Your task to perform on an android device: Go to Google Image 0: 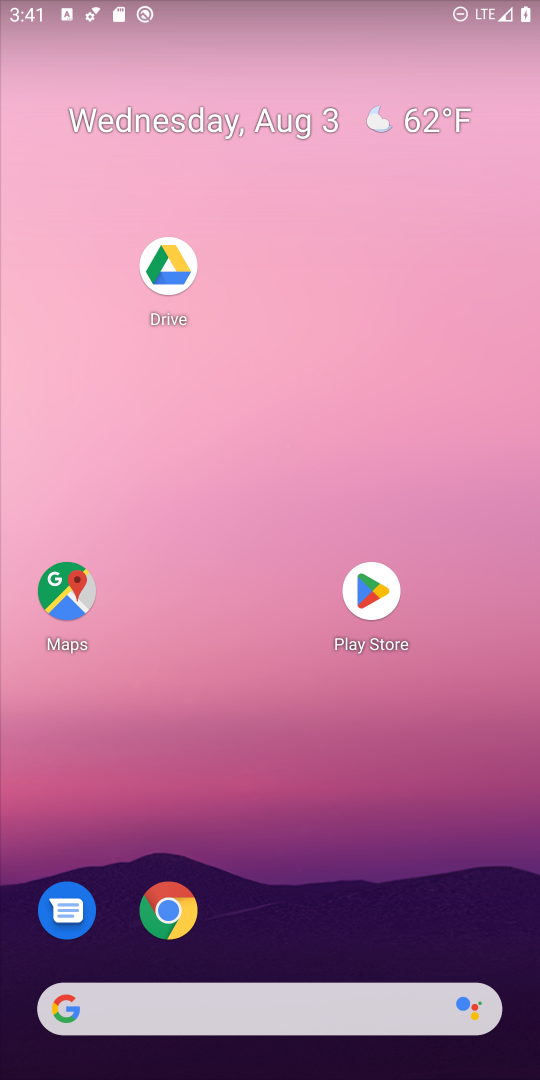
Step 0: drag from (276, 1022) to (367, 18)
Your task to perform on an android device: Go to Google Image 1: 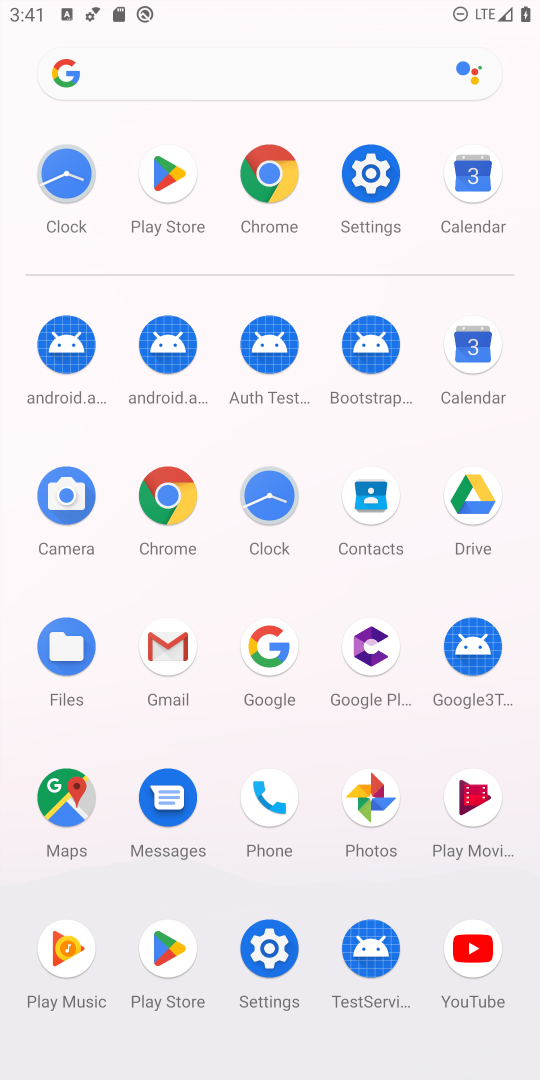
Step 1: click (262, 637)
Your task to perform on an android device: Go to Google Image 2: 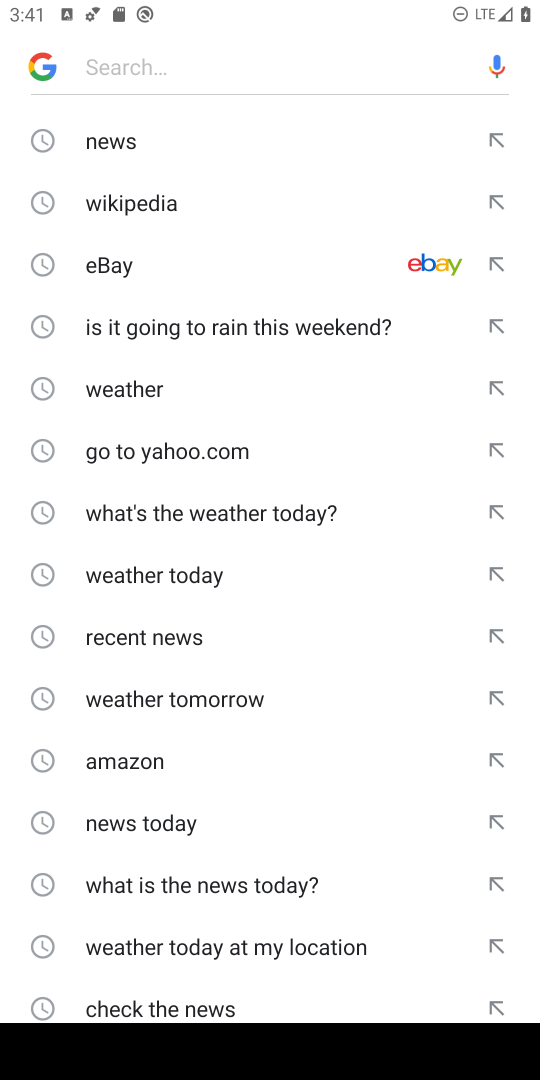
Step 2: task complete